Your task to perform on an android device: Check the weather Image 0: 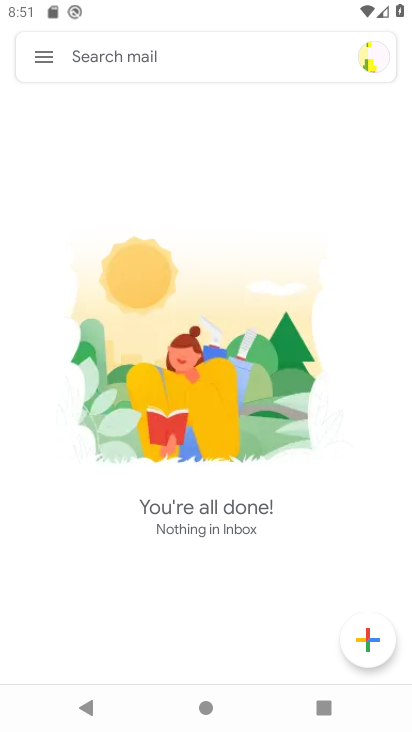
Step 0: press home button
Your task to perform on an android device: Check the weather Image 1: 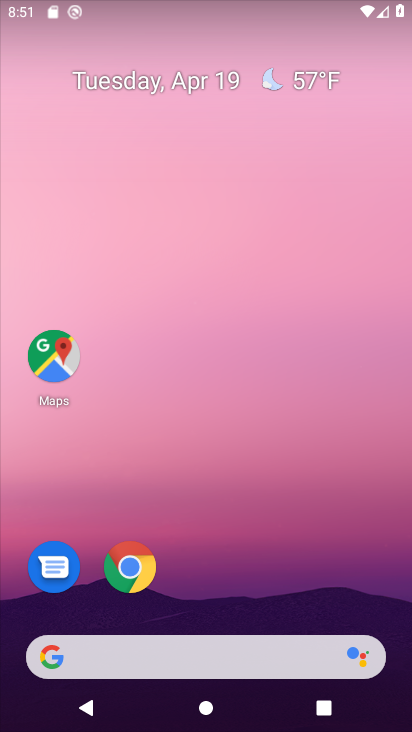
Step 1: drag from (253, 712) to (164, 61)
Your task to perform on an android device: Check the weather Image 2: 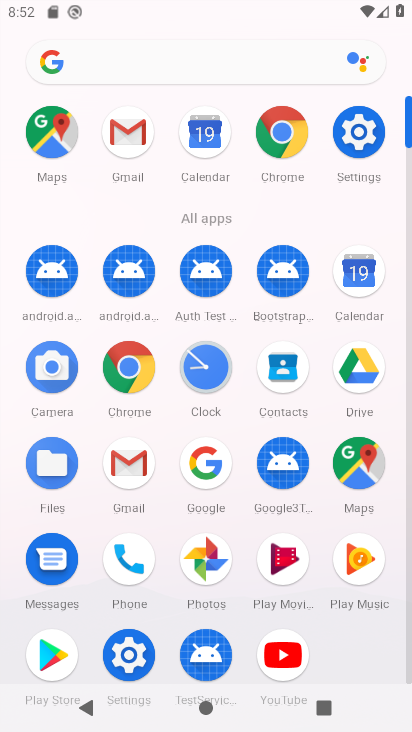
Step 2: click (127, 364)
Your task to perform on an android device: Check the weather Image 3: 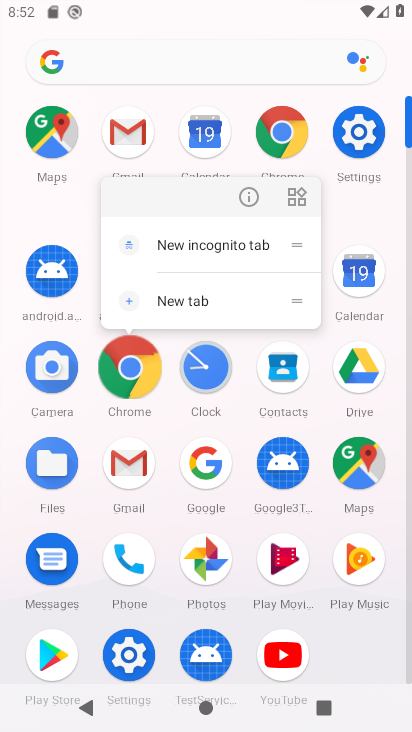
Step 3: click (127, 364)
Your task to perform on an android device: Check the weather Image 4: 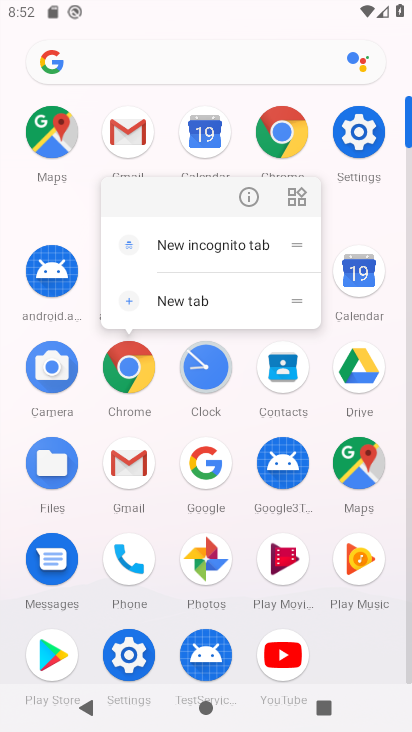
Step 4: click (127, 364)
Your task to perform on an android device: Check the weather Image 5: 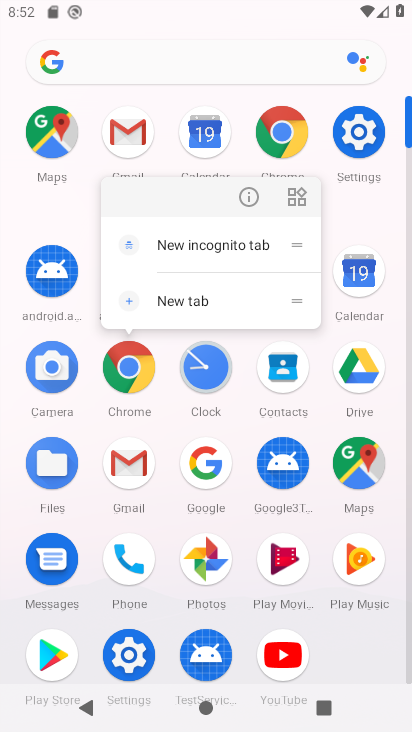
Step 5: click (124, 356)
Your task to perform on an android device: Check the weather Image 6: 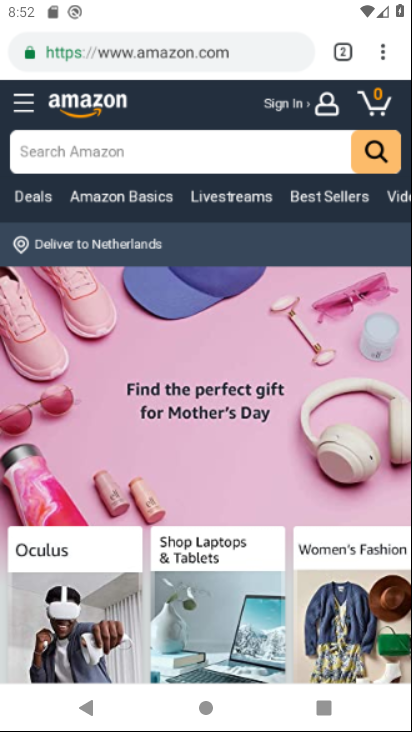
Step 6: click (259, 58)
Your task to perform on an android device: Check the weather Image 7: 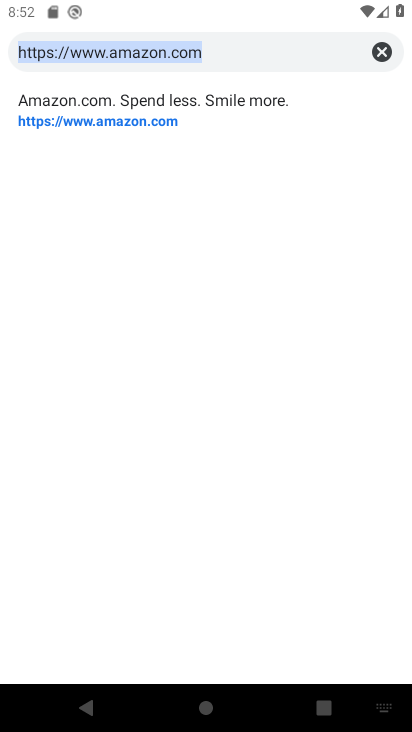
Step 7: type "check the weather"
Your task to perform on an android device: Check the weather Image 8: 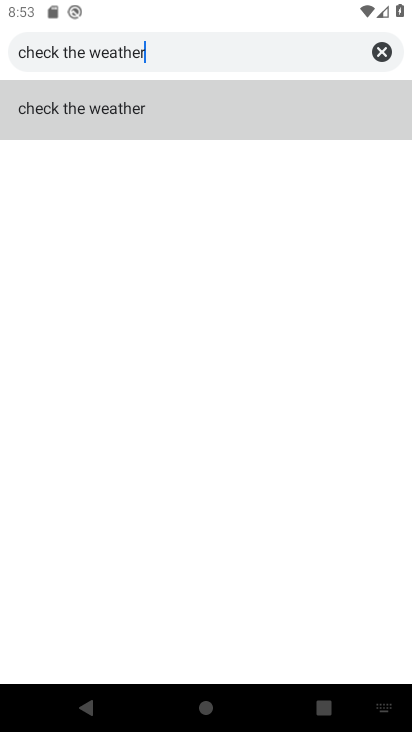
Step 8: click (253, 216)
Your task to perform on an android device: Check the weather Image 9: 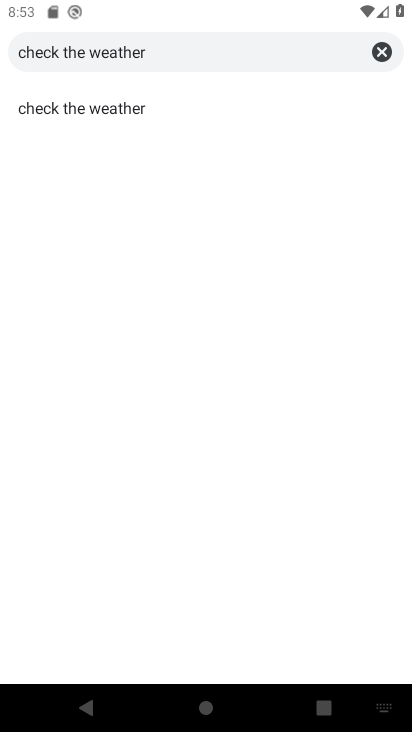
Step 9: click (94, 105)
Your task to perform on an android device: Check the weather Image 10: 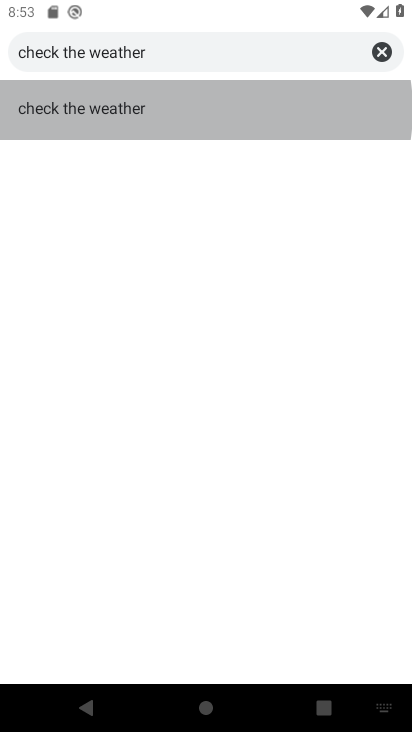
Step 10: click (94, 105)
Your task to perform on an android device: Check the weather Image 11: 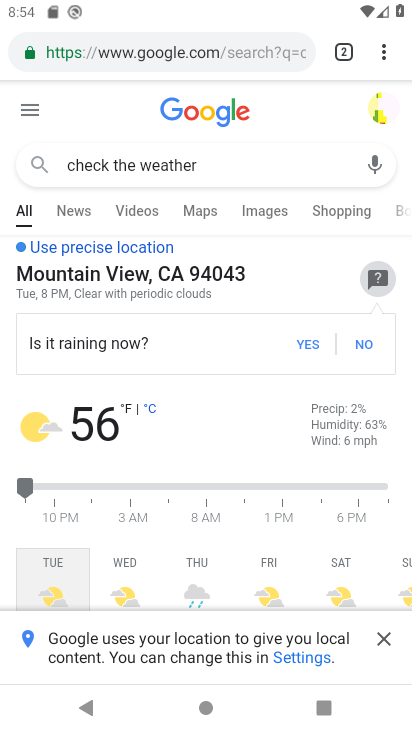
Step 11: task complete